Your task to perform on an android device: Go to internet settings Image 0: 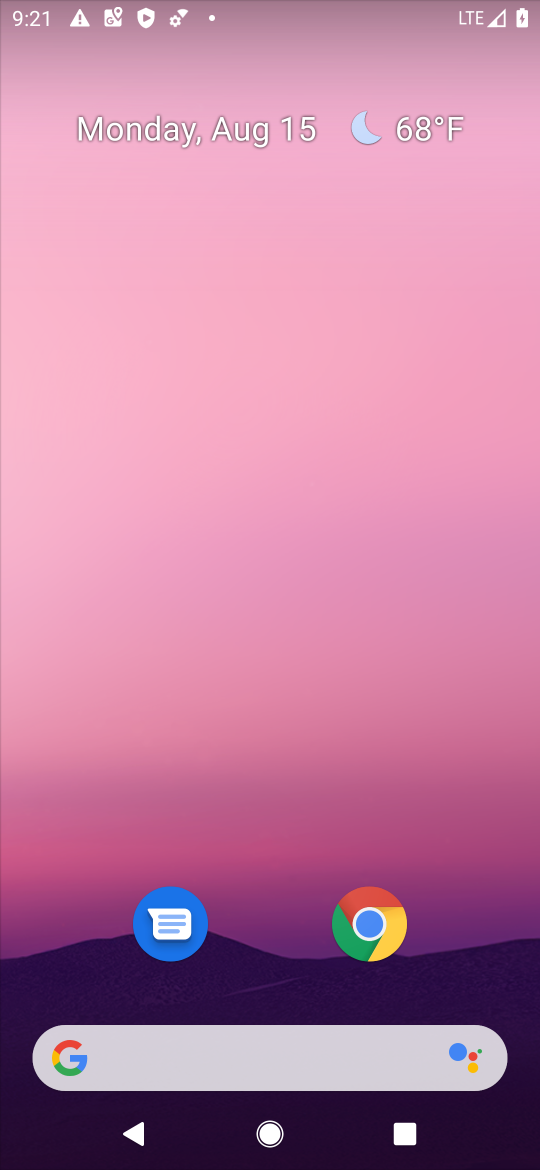
Step 0: drag from (497, 986) to (441, 138)
Your task to perform on an android device: Go to internet settings Image 1: 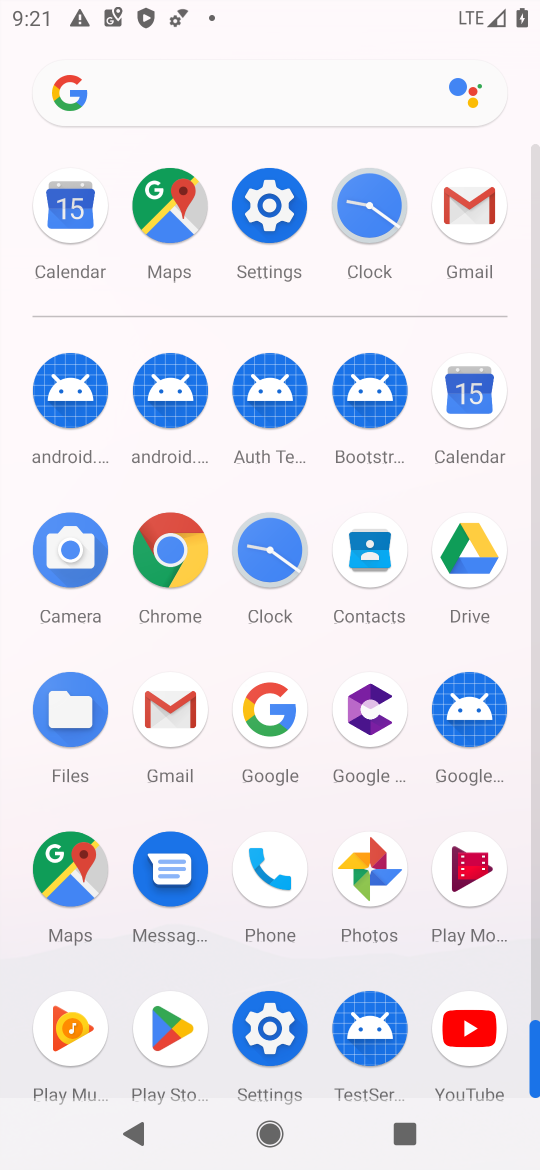
Step 1: click (271, 1031)
Your task to perform on an android device: Go to internet settings Image 2: 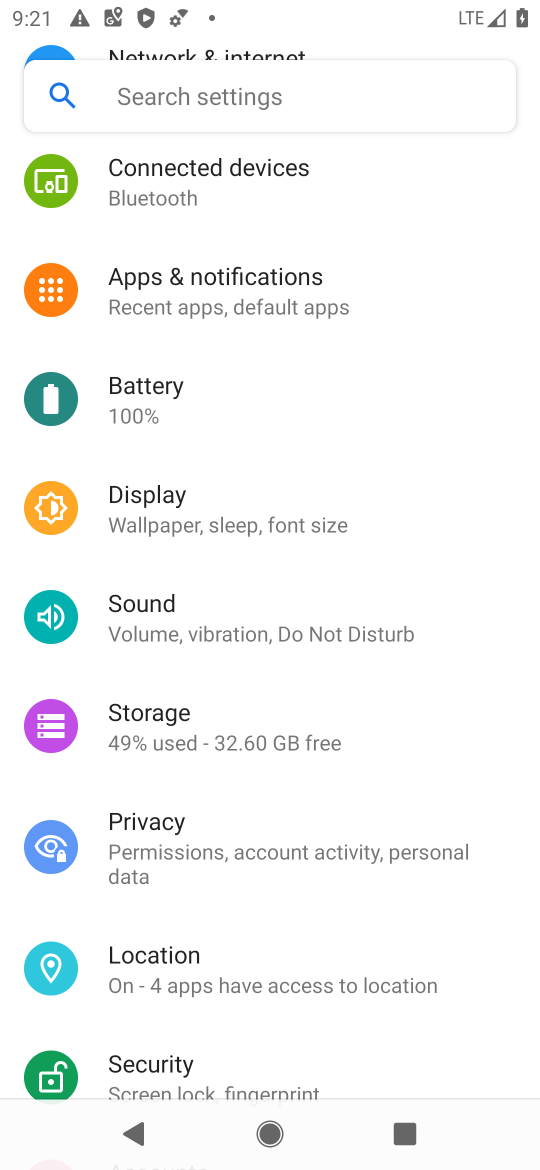
Step 2: drag from (462, 230) to (477, 582)
Your task to perform on an android device: Go to internet settings Image 3: 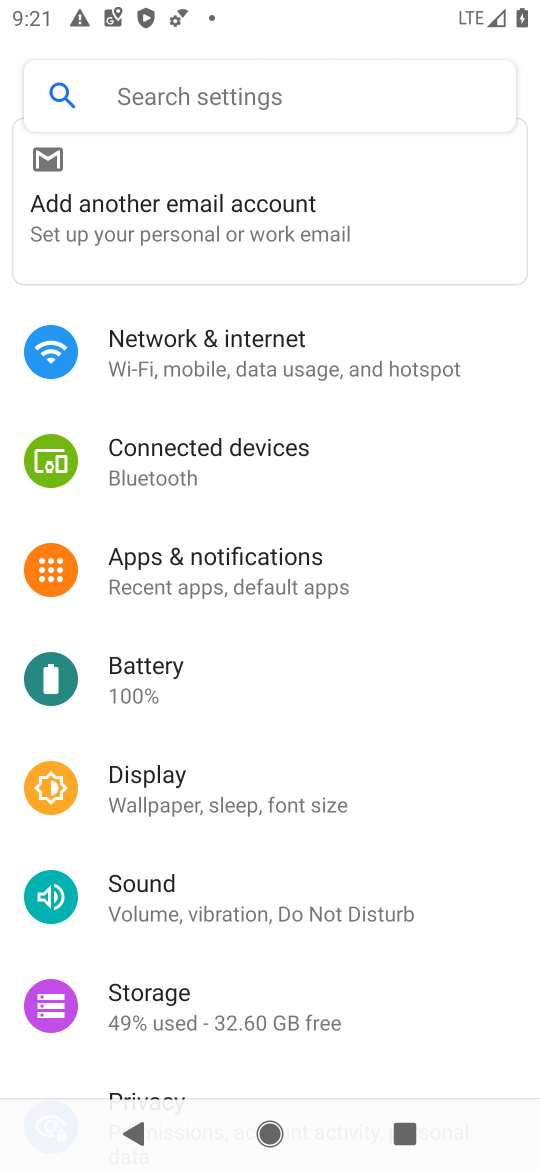
Step 3: click (195, 345)
Your task to perform on an android device: Go to internet settings Image 4: 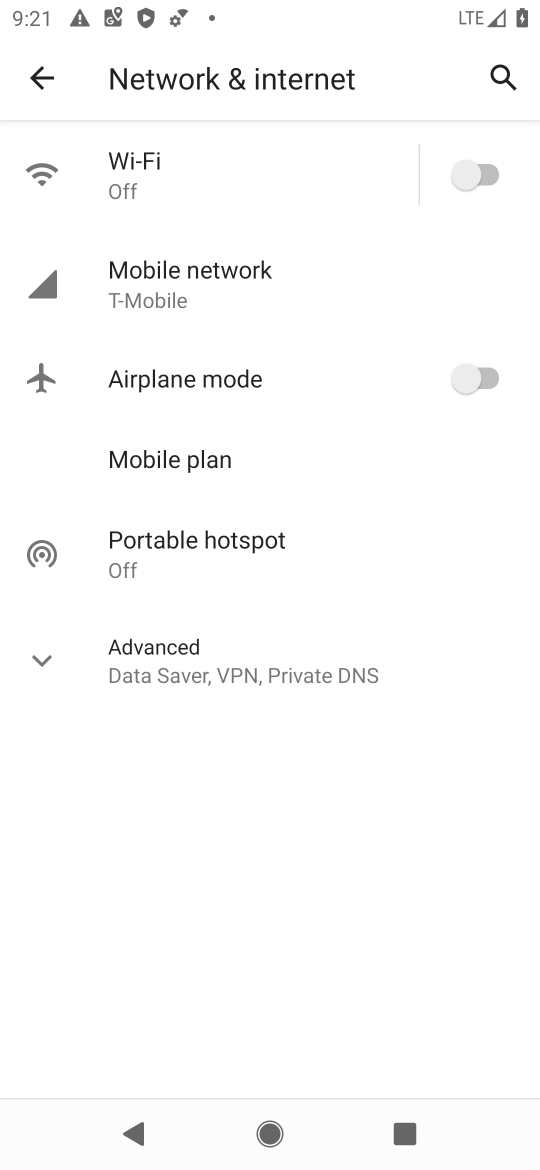
Step 4: click (144, 162)
Your task to perform on an android device: Go to internet settings Image 5: 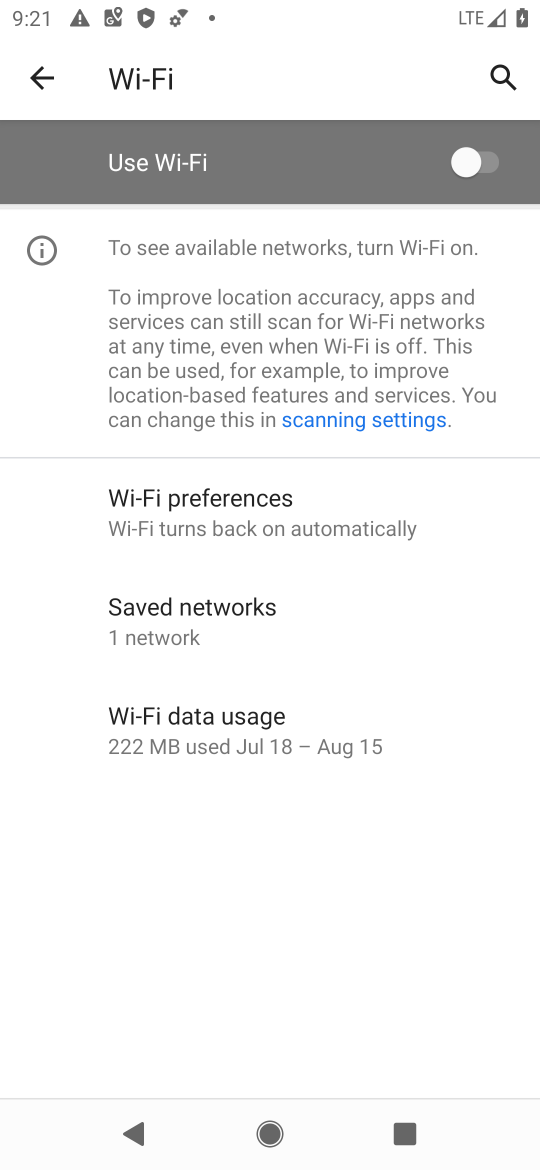
Step 5: task complete